Your task to perform on an android device: toggle javascript in the chrome app Image 0: 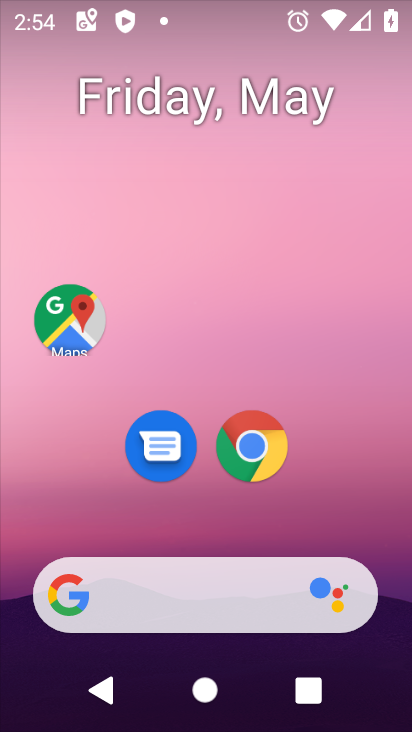
Step 0: click (266, 452)
Your task to perform on an android device: toggle javascript in the chrome app Image 1: 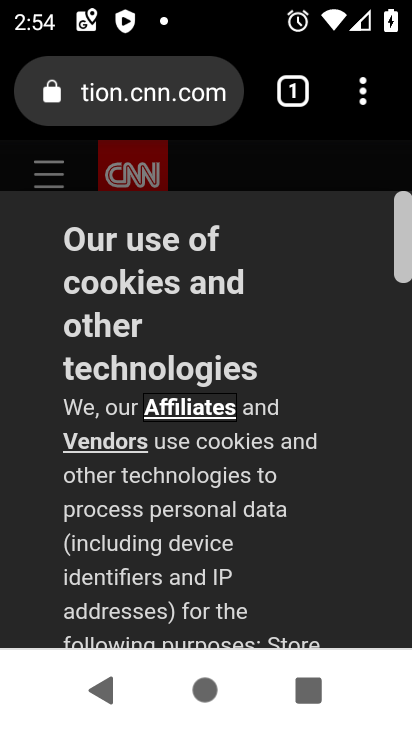
Step 1: click (371, 86)
Your task to perform on an android device: toggle javascript in the chrome app Image 2: 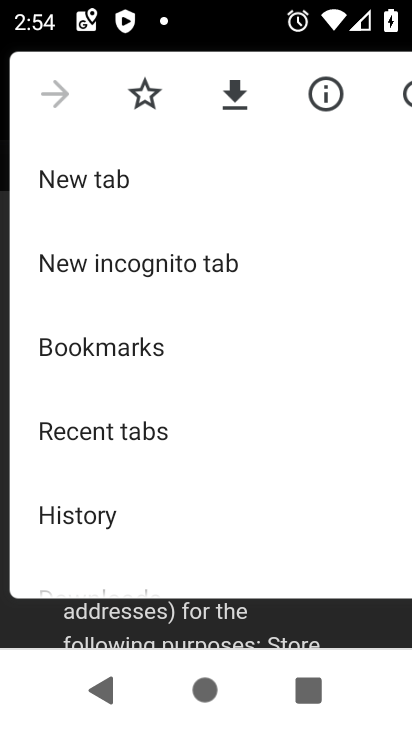
Step 2: drag from (191, 533) to (138, 130)
Your task to perform on an android device: toggle javascript in the chrome app Image 3: 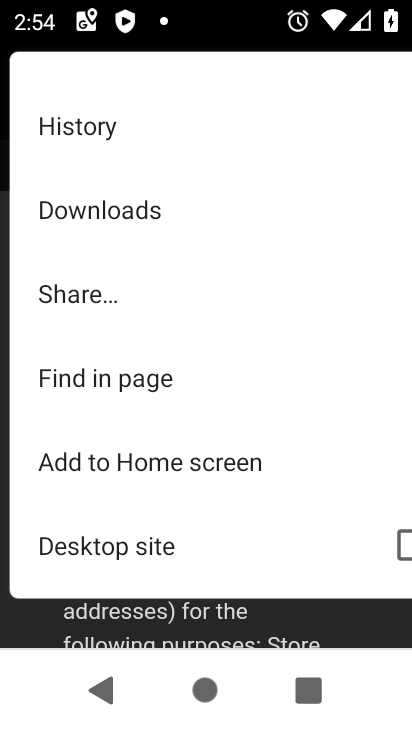
Step 3: drag from (207, 525) to (156, 141)
Your task to perform on an android device: toggle javascript in the chrome app Image 4: 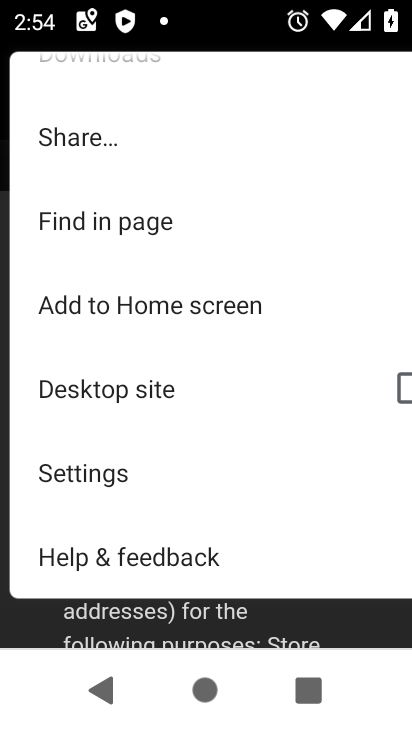
Step 4: click (112, 471)
Your task to perform on an android device: toggle javascript in the chrome app Image 5: 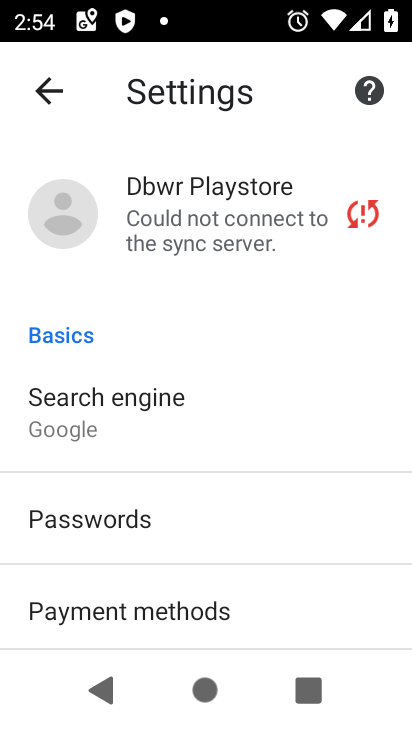
Step 5: drag from (189, 577) to (126, 176)
Your task to perform on an android device: toggle javascript in the chrome app Image 6: 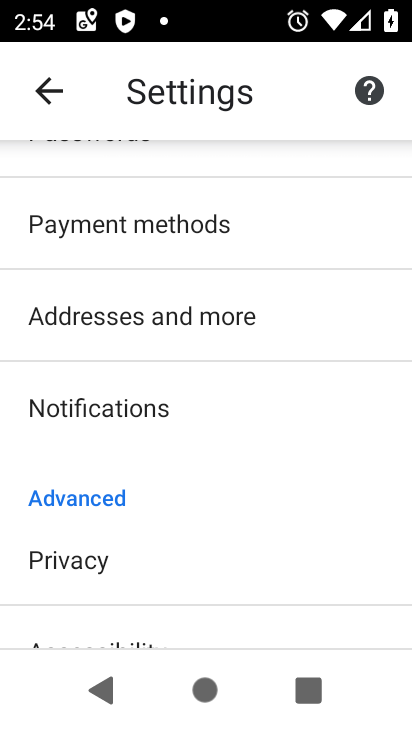
Step 6: drag from (178, 502) to (151, 145)
Your task to perform on an android device: toggle javascript in the chrome app Image 7: 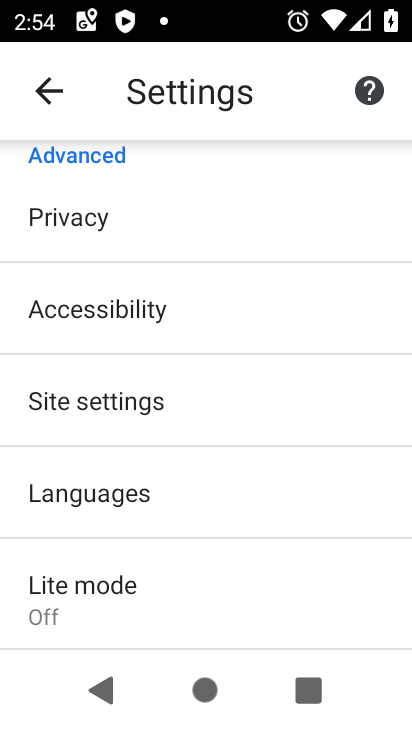
Step 7: click (179, 394)
Your task to perform on an android device: toggle javascript in the chrome app Image 8: 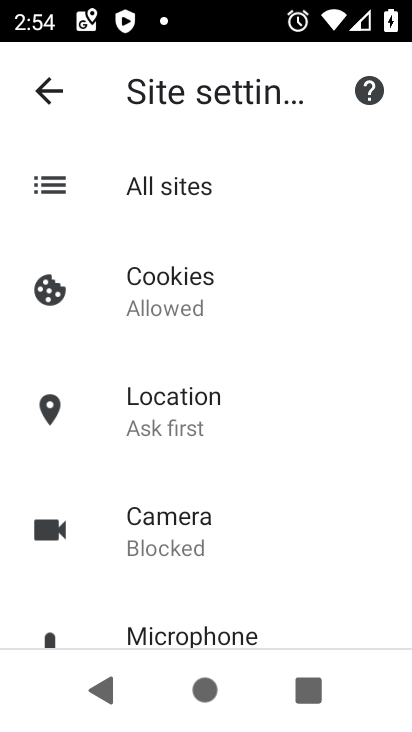
Step 8: drag from (246, 573) to (225, 275)
Your task to perform on an android device: toggle javascript in the chrome app Image 9: 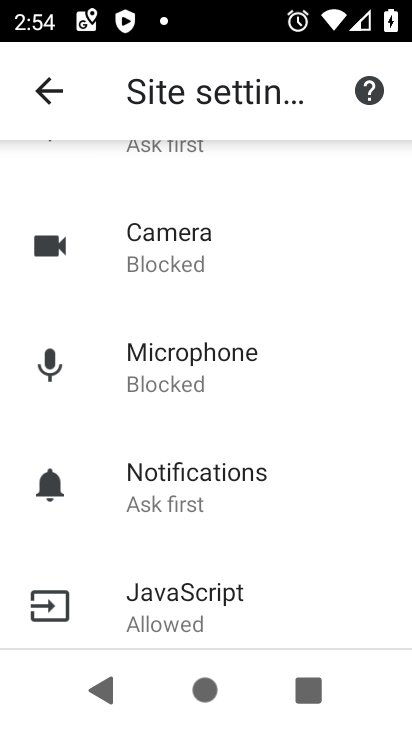
Step 9: click (242, 595)
Your task to perform on an android device: toggle javascript in the chrome app Image 10: 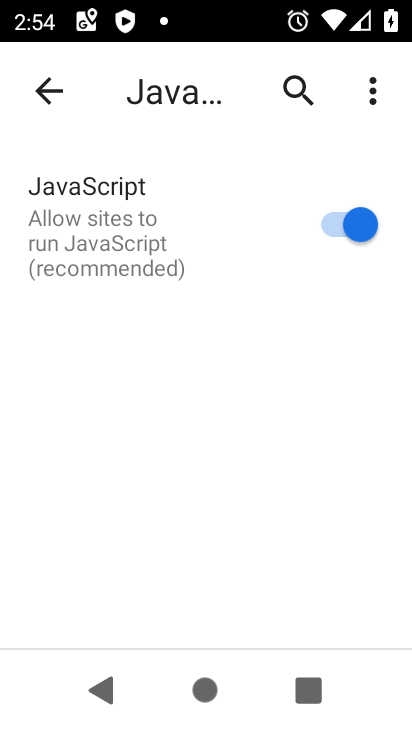
Step 10: click (339, 223)
Your task to perform on an android device: toggle javascript in the chrome app Image 11: 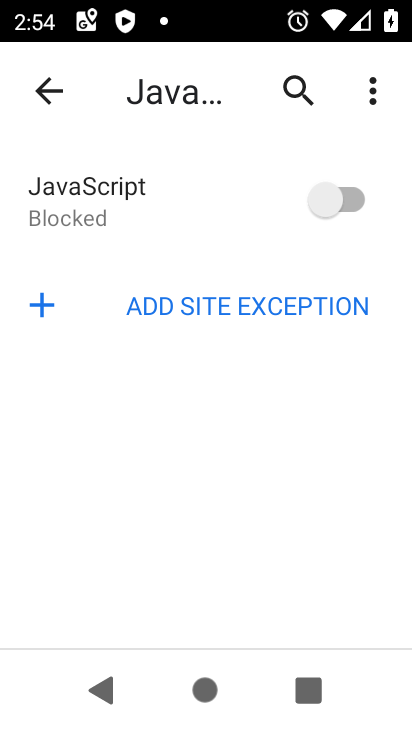
Step 11: task complete